Your task to perform on an android device: Go to location settings Image 0: 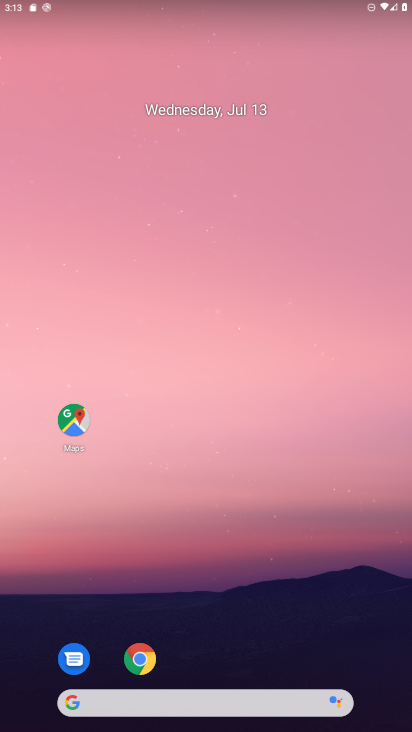
Step 0: drag from (387, 669) to (313, 74)
Your task to perform on an android device: Go to location settings Image 1: 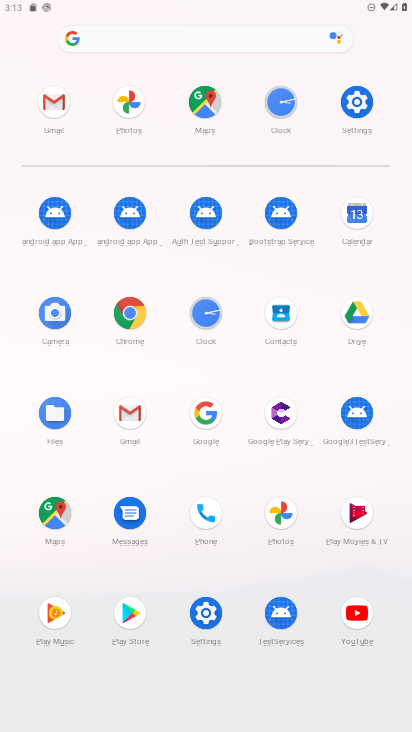
Step 1: click (205, 617)
Your task to perform on an android device: Go to location settings Image 2: 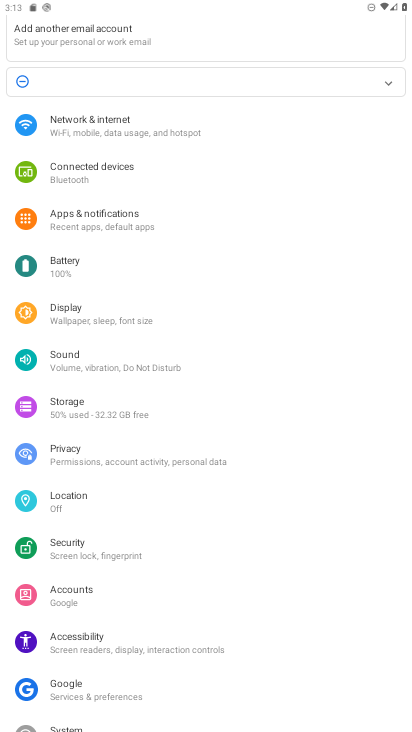
Step 2: click (53, 496)
Your task to perform on an android device: Go to location settings Image 3: 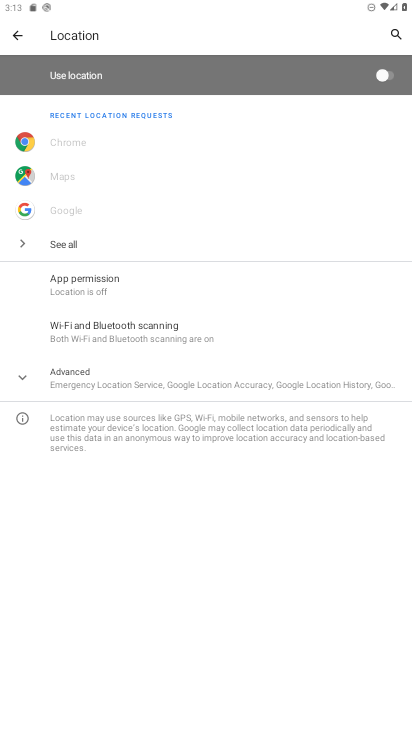
Step 3: click (19, 377)
Your task to perform on an android device: Go to location settings Image 4: 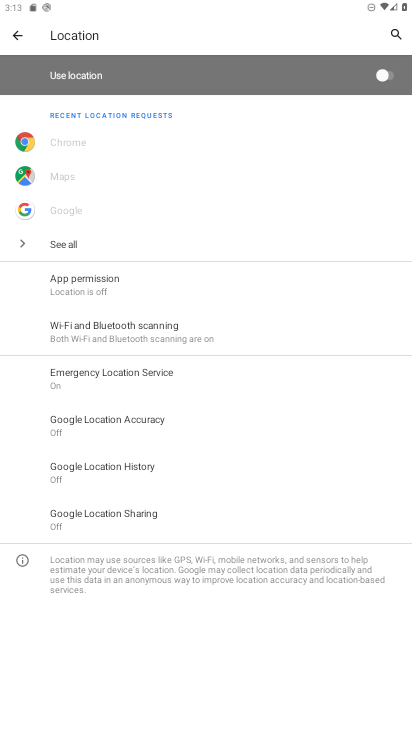
Step 4: task complete